Your task to perform on an android device: read, delete, or share a saved page in the chrome app Image 0: 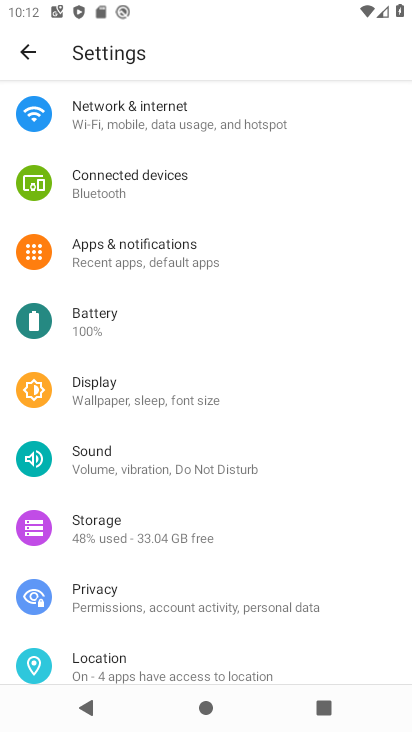
Step 0: press home button
Your task to perform on an android device: read, delete, or share a saved page in the chrome app Image 1: 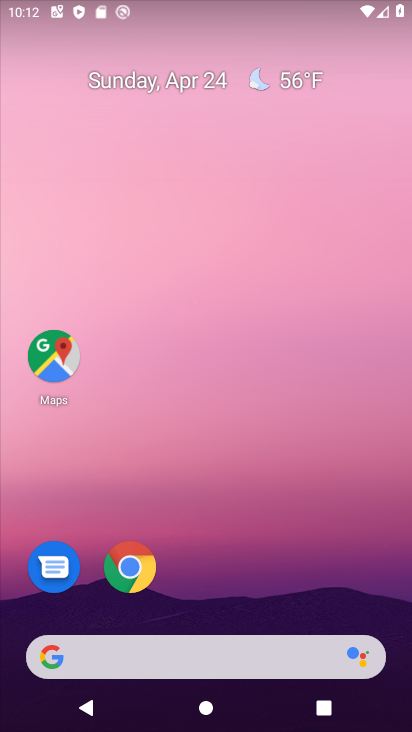
Step 1: click (135, 572)
Your task to perform on an android device: read, delete, or share a saved page in the chrome app Image 2: 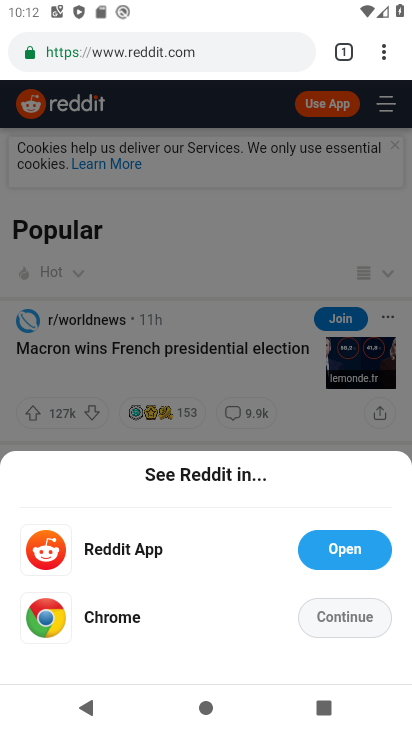
Step 2: drag from (386, 51) to (227, 342)
Your task to perform on an android device: read, delete, or share a saved page in the chrome app Image 3: 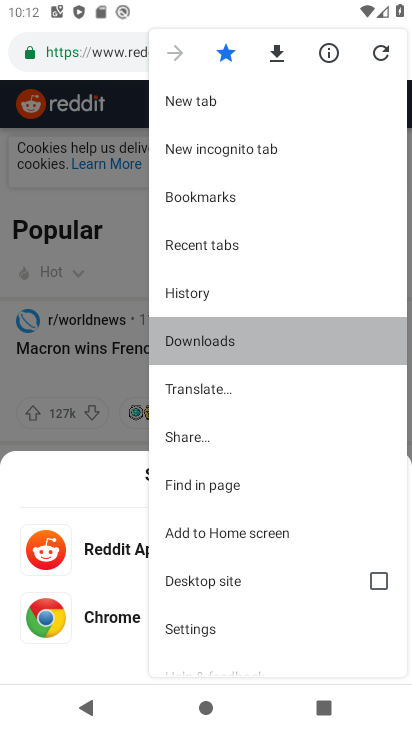
Step 3: click (227, 342)
Your task to perform on an android device: read, delete, or share a saved page in the chrome app Image 4: 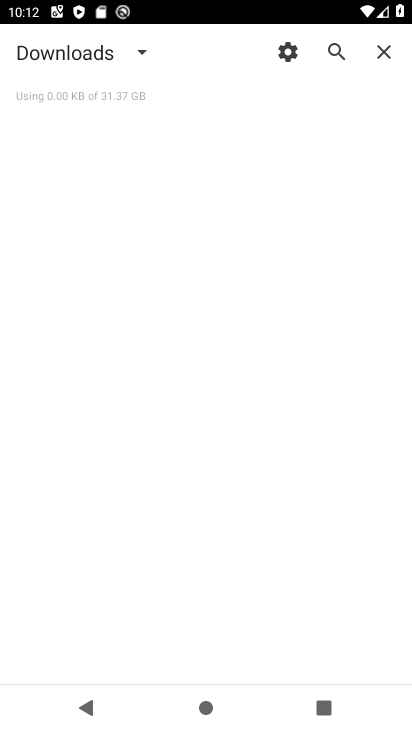
Step 4: click (126, 55)
Your task to perform on an android device: read, delete, or share a saved page in the chrome app Image 5: 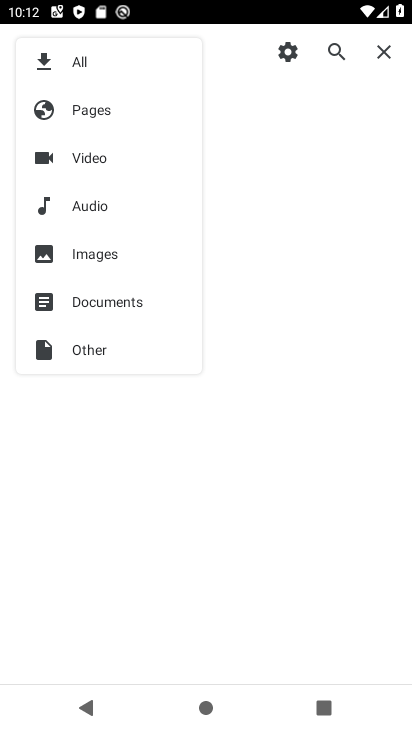
Step 5: click (88, 105)
Your task to perform on an android device: read, delete, or share a saved page in the chrome app Image 6: 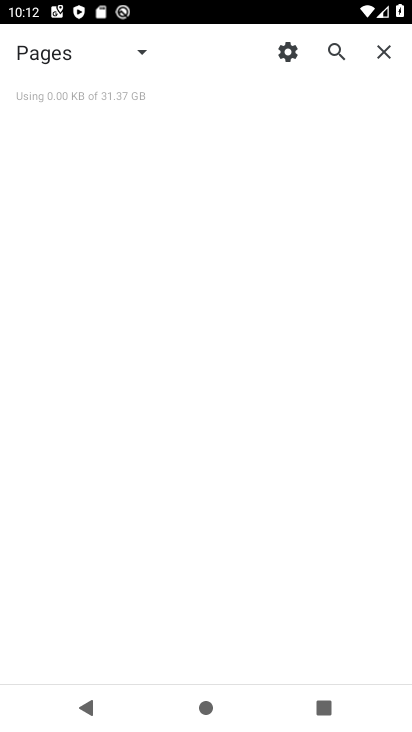
Step 6: task complete